Your task to perform on an android device: turn off javascript in the chrome app Image 0: 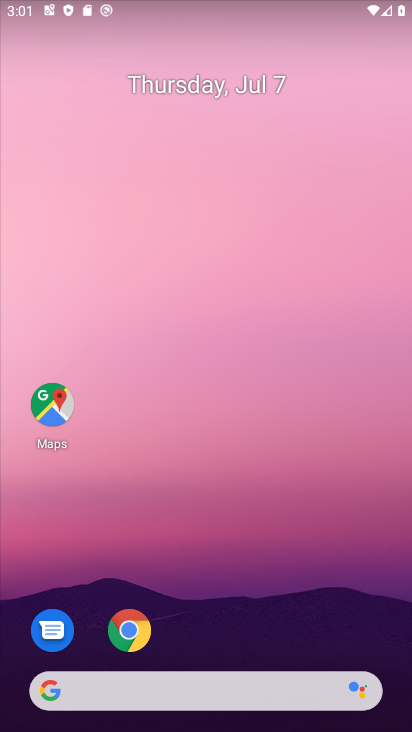
Step 0: click (130, 630)
Your task to perform on an android device: turn off javascript in the chrome app Image 1: 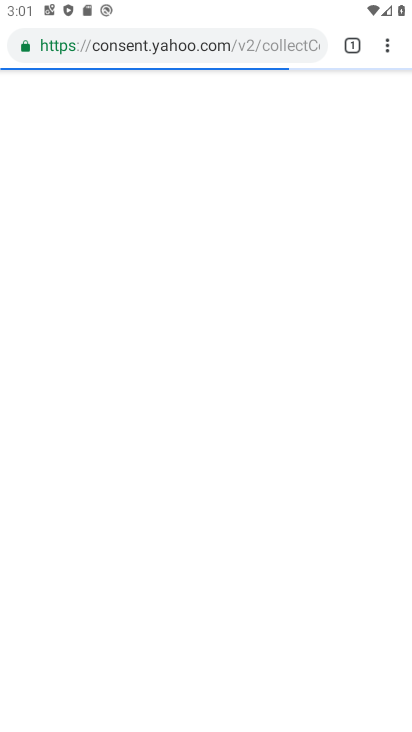
Step 1: click (129, 629)
Your task to perform on an android device: turn off javascript in the chrome app Image 2: 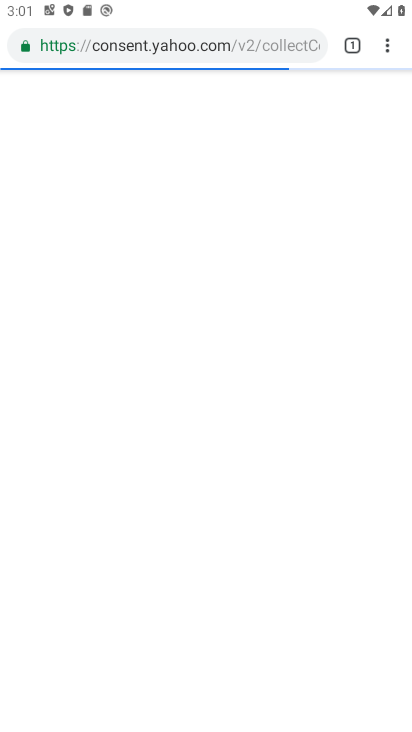
Step 2: click (130, 627)
Your task to perform on an android device: turn off javascript in the chrome app Image 3: 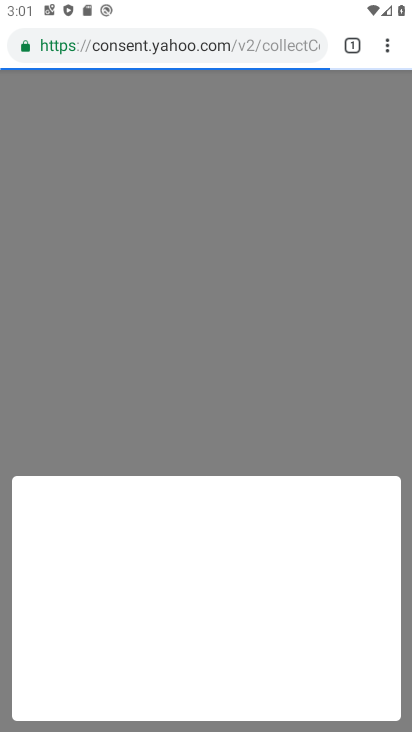
Step 3: click (134, 623)
Your task to perform on an android device: turn off javascript in the chrome app Image 4: 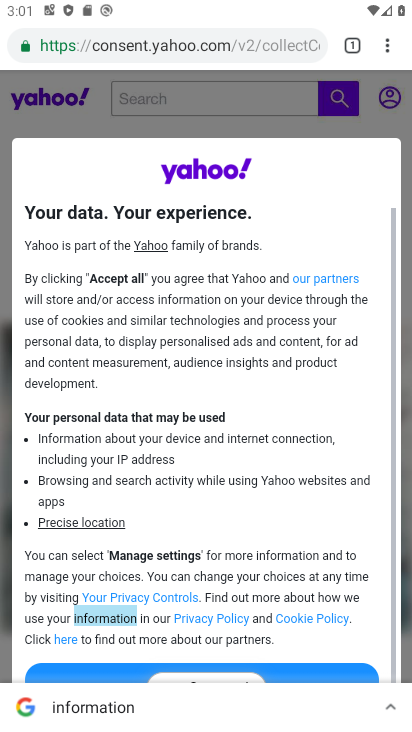
Step 4: click (385, 45)
Your task to perform on an android device: turn off javascript in the chrome app Image 5: 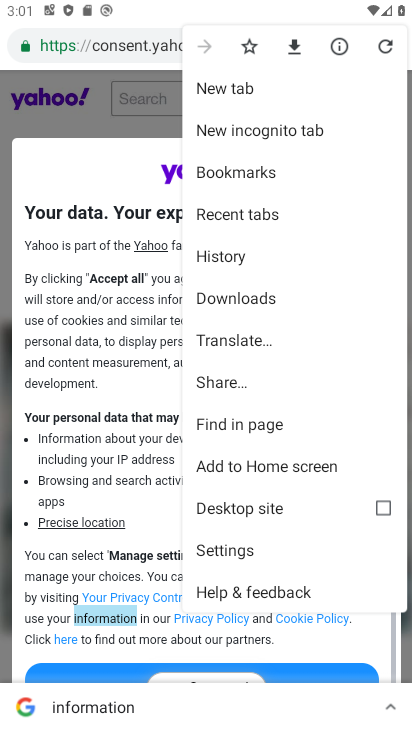
Step 5: click (244, 554)
Your task to perform on an android device: turn off javascript in the chrome app Image 6: 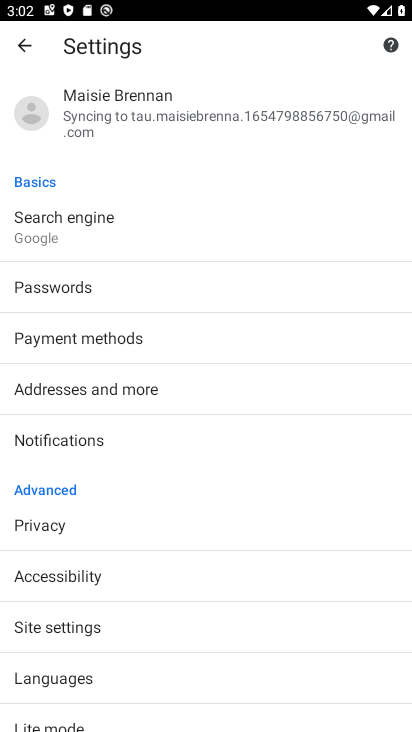
Step 6: click (88, 632)
Your task to perform on an android device: turn off javascript in the chrome app Image 7: 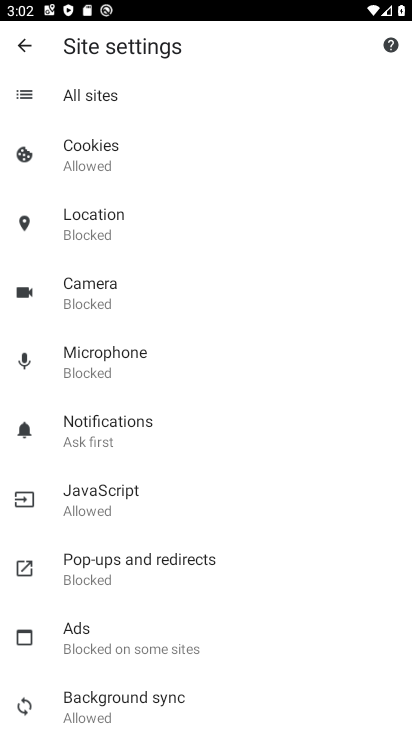
Step 7: click (108, 507)
Your task to perform on an android device: turn off javascript in the chrome app Image 8: 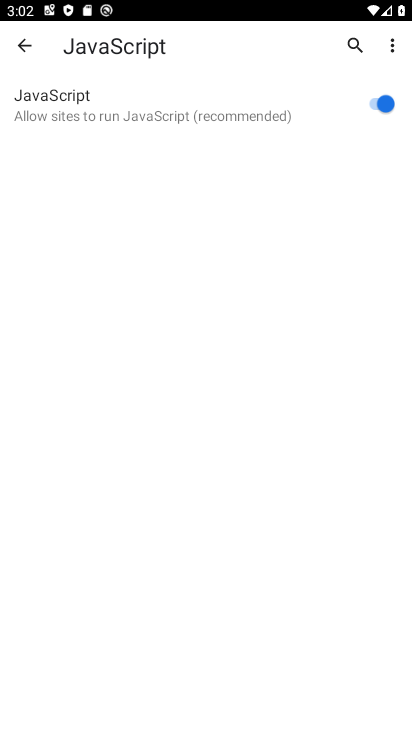
Step 8: click (361, 103)
Your task to perform on an android device: turn off javascript in the chrome app Image 9: 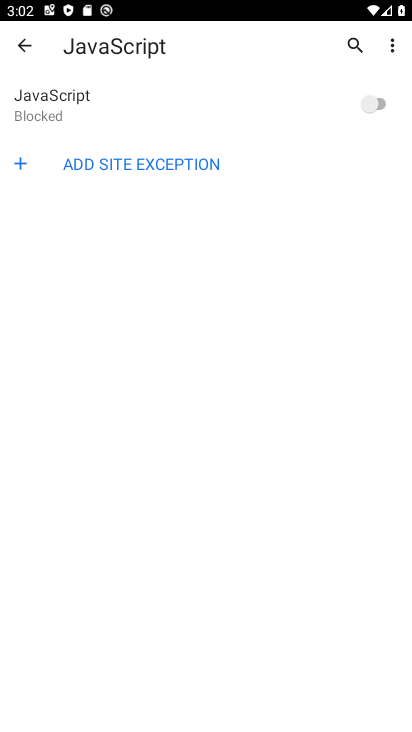
Step 9: task complete